Your task to perform on an android device: Check the news Image 0: 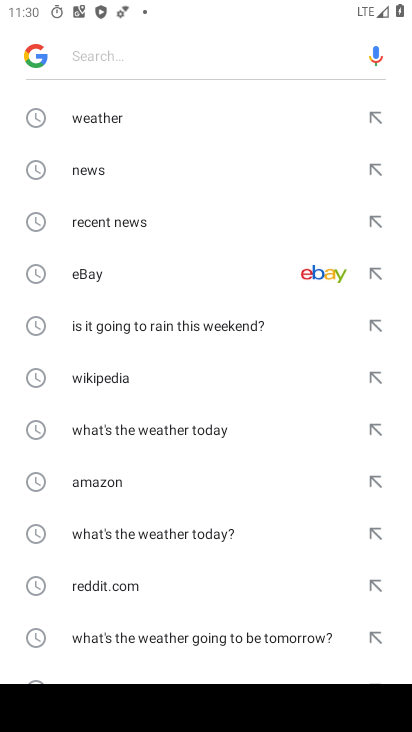
Step 0: press home button
Your task to perform on an android device: Check the news Image 1: 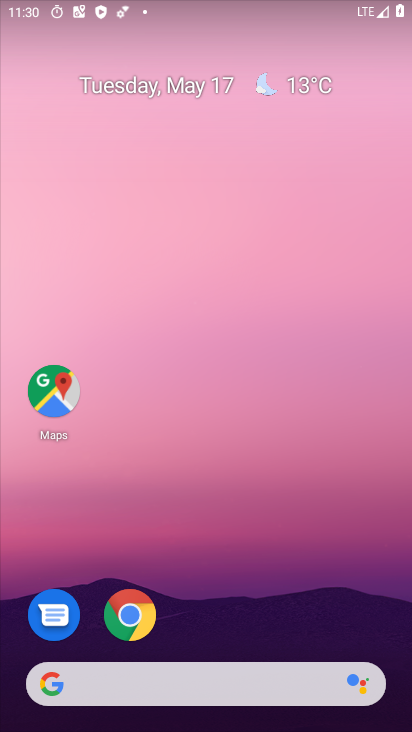
Step 1: click (59, 687)
Your task to perform on an android device: Check the news Image 2: 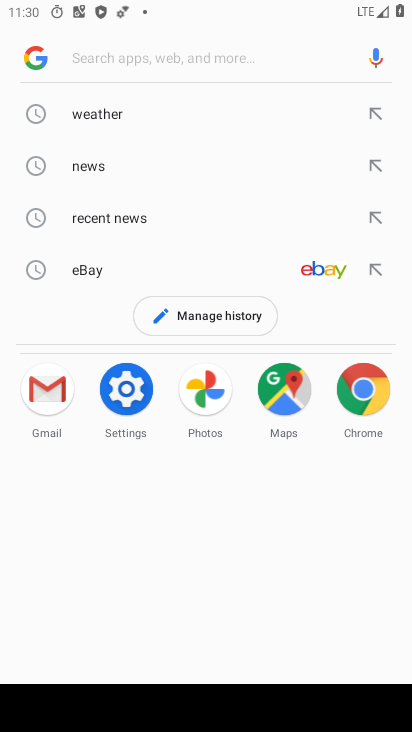
Step 2: click (87, 166)
Your task to perform on an android device: Check the news Image 3: 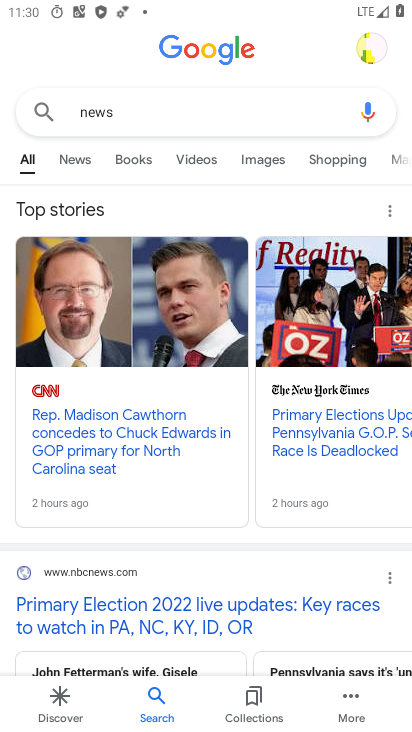
Step 3: click (56, 163)
Your task to perform on an android device: Check the news Image 4: 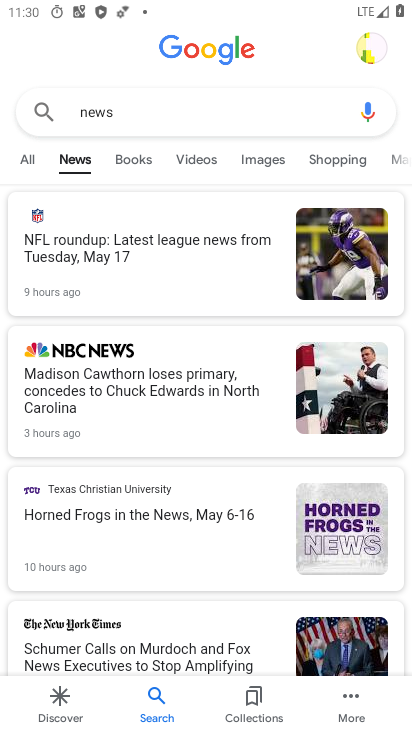
Step 4: task complete